Your task to perform on an android device: find snoozed emails in the gmail app Image 0: 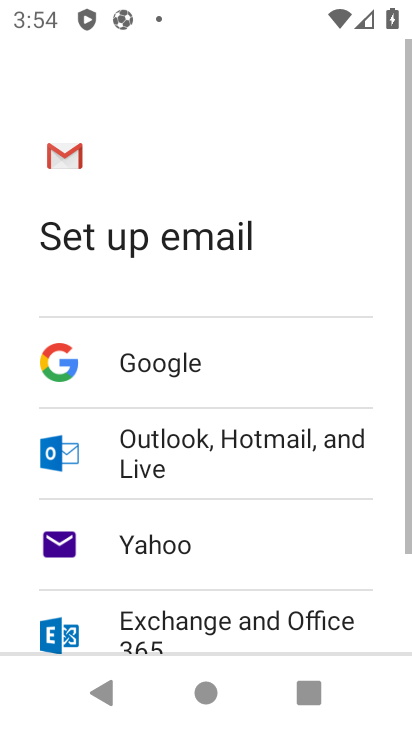
Step 0: press home button
Your task to perform on an android device: find snoozed emails in the gmail app Image 1: 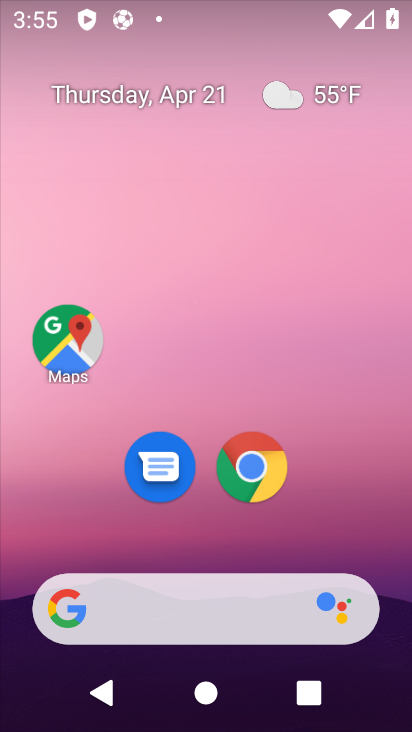
Step 1: drag from (161, 575) to (98, 224)
Your task to perform on an android device: find snoozed emails in the gmail app Image 2: 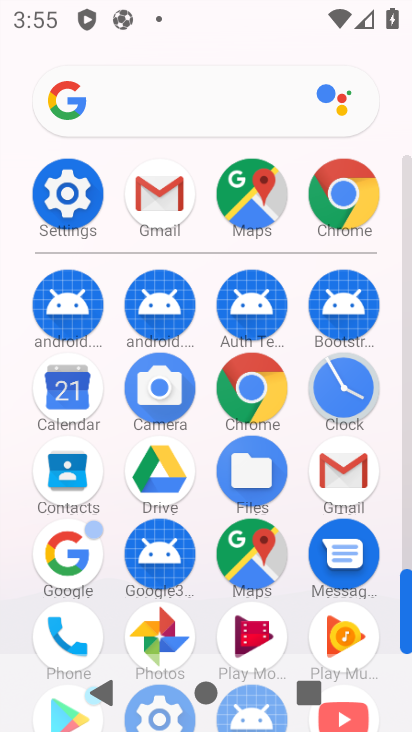
Step 2: click (332, 490)
Your task to perform on an android device: find snoozed emails in the gmail app Image 3: 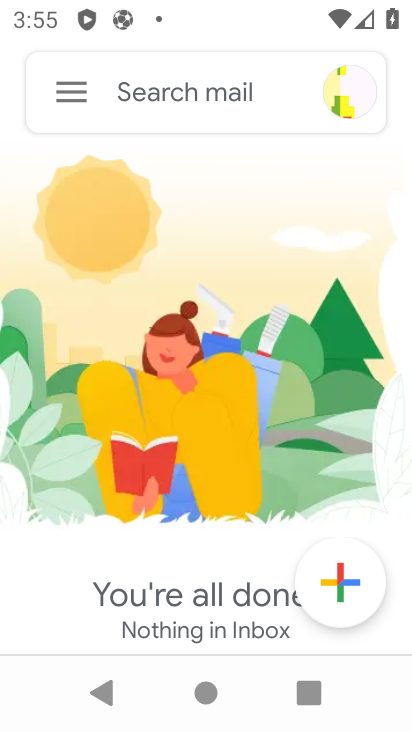
Step 3: click (69, 100)
Your task to perform on an android device: find snoozed emails in the gmail app Image 4: 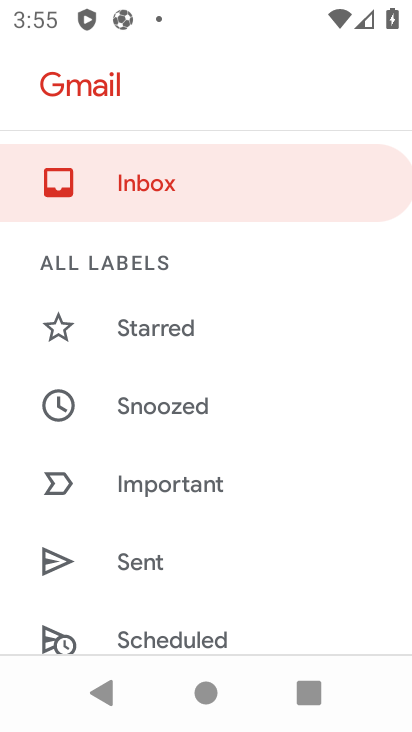
Step 4: click (138, 410)
Your task to perform on an android device: find snoozed emails in the gmail app Image 5: 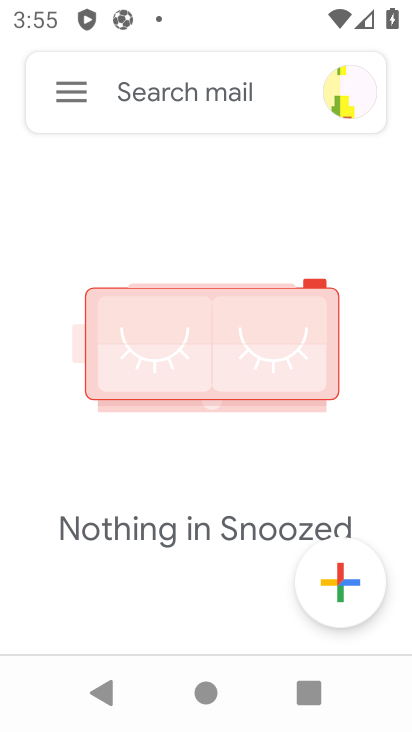
Step 5: task complete